Your task to perform on an android device: turn vacation reply on in the gmail app Image 0: 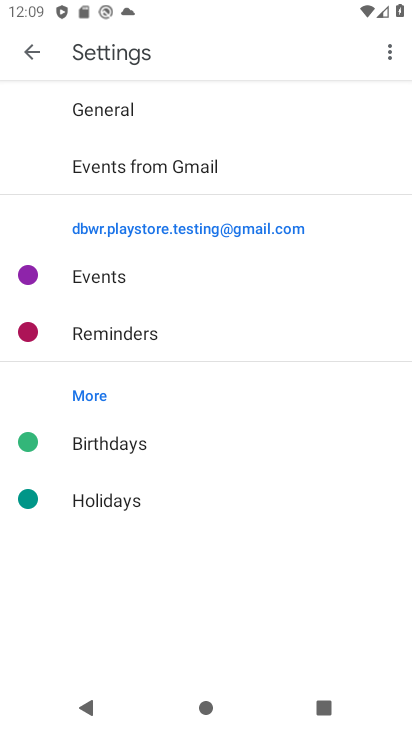
Step 0: press home button
Your task to perform on an android device: turn vacation reply on in the gmail app Image 1: 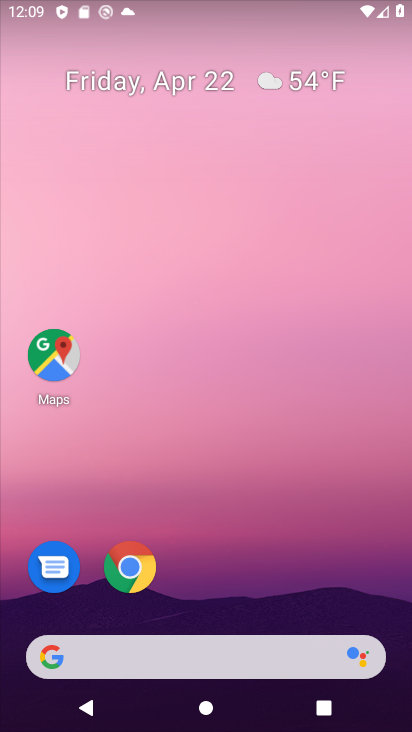
Step 1: drag from (246, 356) to (300, 101)
Your task to perform on an android device: turn vacation reply on in the gmail app Image 2: 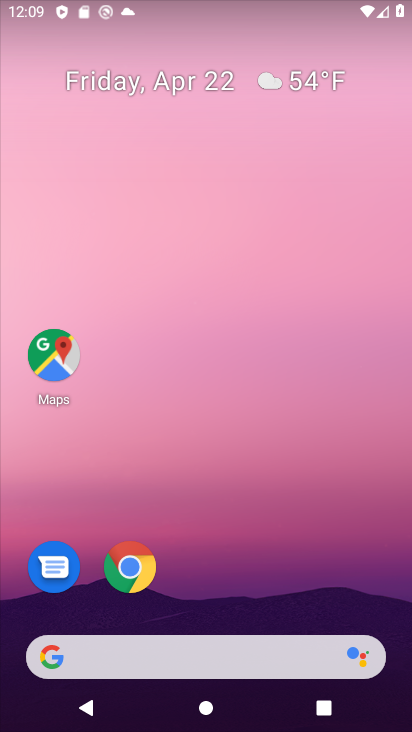
Step 2: drag from (258, 171) to (278, 49)
Your task to perform on an android device: turn vacation reply on in the gmail app Image 3: 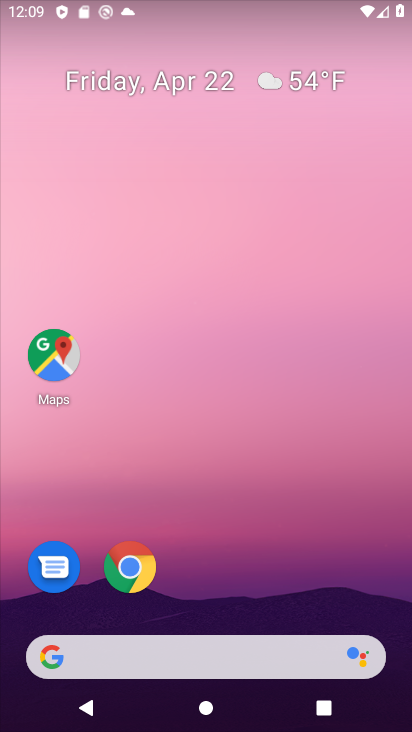
Step 3: drag from (260, 603) to (280, 224)
Your task to perform on an android device: turn vacation reply on in the gmail app Image 4: 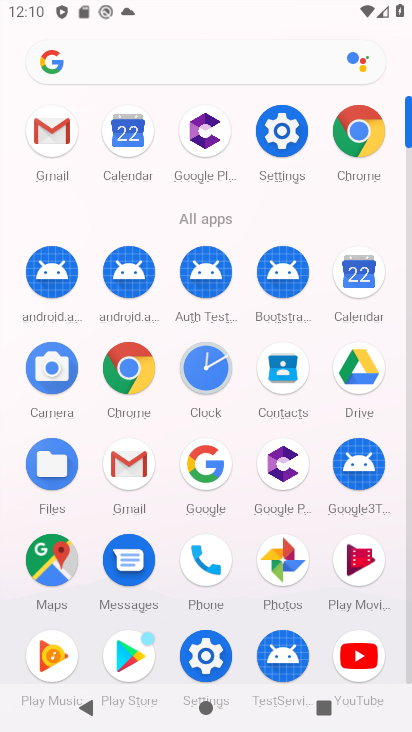
Step 4: click (141, 473)
Your task to perform on an android device: turn vacation reply on in the gmail app Image 5: 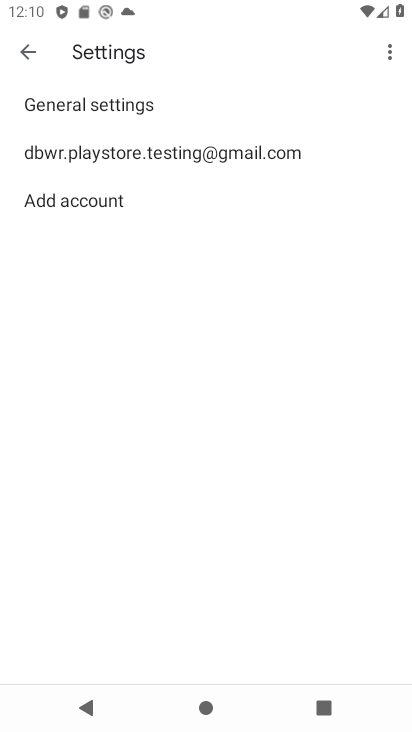
Step 5: click (163, 161)
Your task to perform on an android device: turn vacation reply on in the gmail app Image 6: 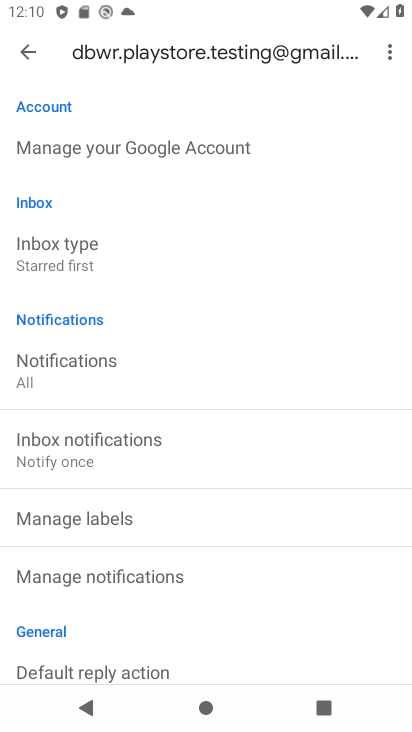
Step 6: drag from (200, 420) to (212, 236)
Your task to perform on an android device: turn vacation reply on in the gmail app Image 7: 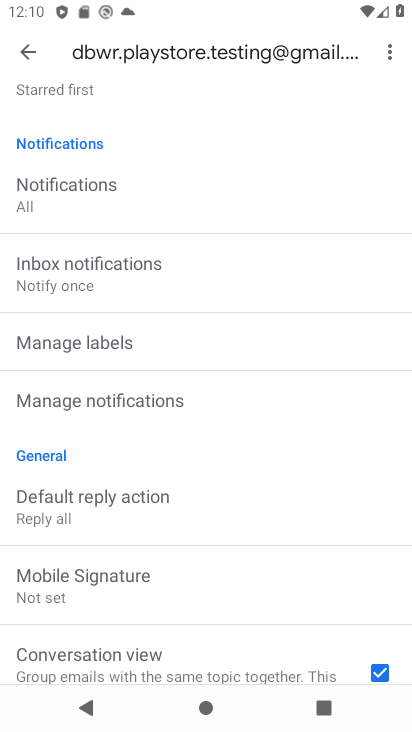
Step 7: drag from (199, 489) to (257, 150)
Your task to perform on an android device: turn vacation reply on in the gmail app Image 8: 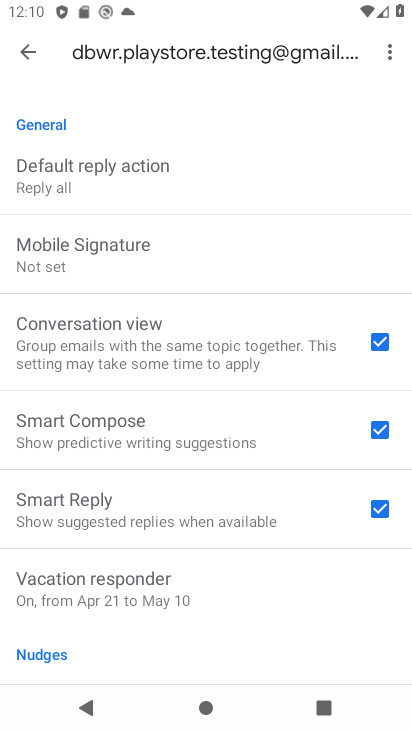
Step 8: click (227, 579)
Your task to perform on an android device: turn vacation reply on in the gmail app Image 9: 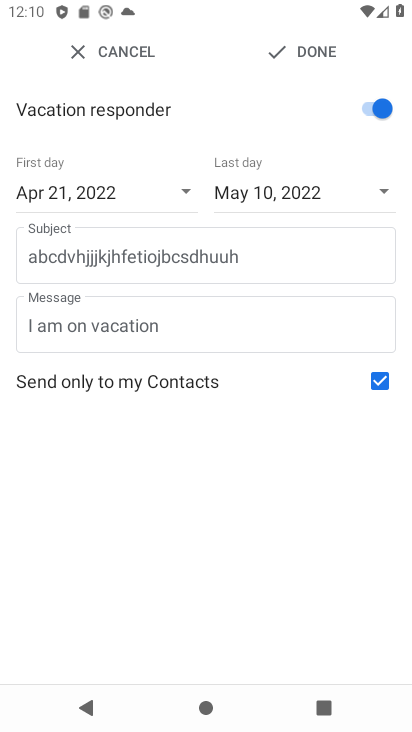
Step 9: task complete